Your task to perform on an android device: Find coffee shops on Maps Image 0: 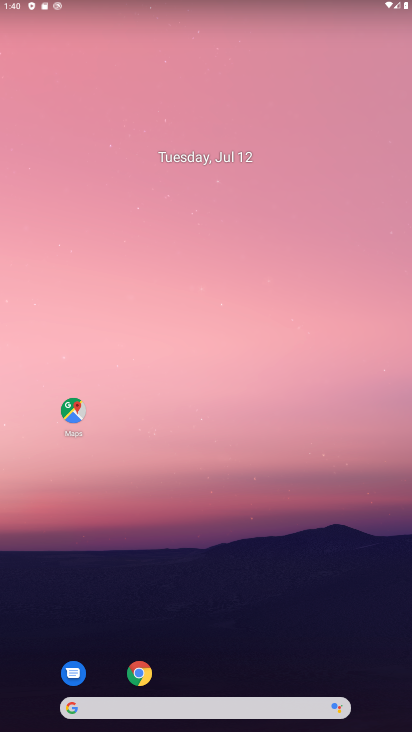
Step 0: click (69, 411)
Your task to perform on an android device: Find coffee shops on Maps Image 1: 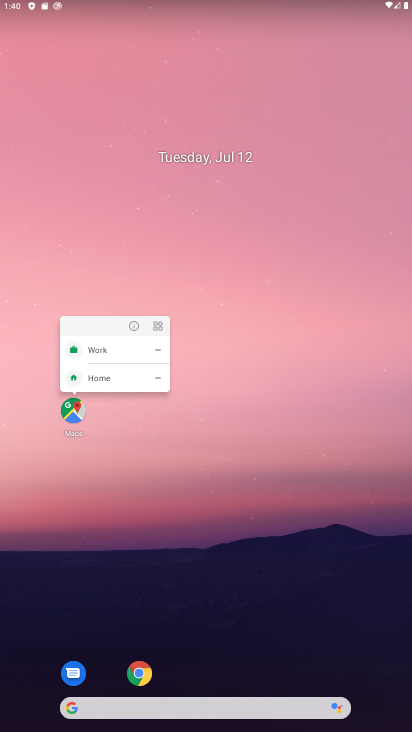
Step 1: click (71, 415)
Your task to perform on an android device: Find coffee shops on Maps Image 2: 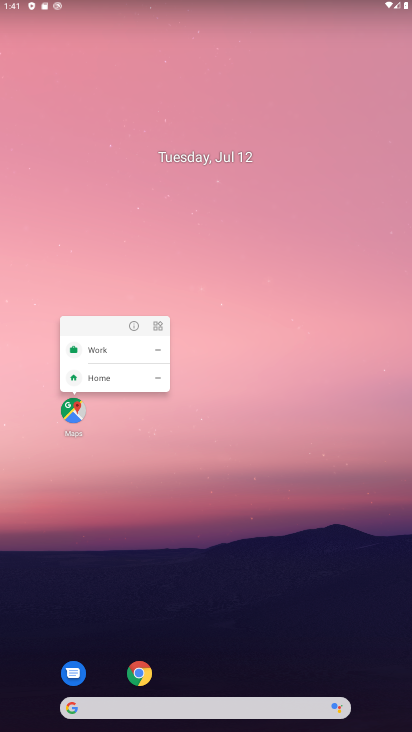
Step 2: click (71, 415)
Your task to perform on an android device: Find coffee shops on Maps Image 3: 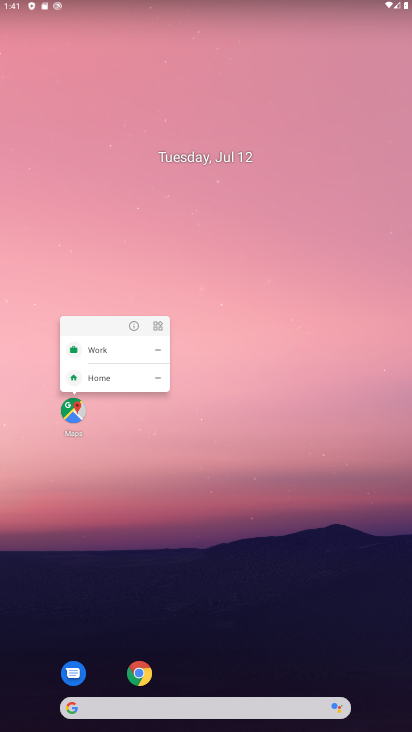
Step 3: click (76, 418)
Your task to perform on an android device: Find coffee shops on Maps Image 4: 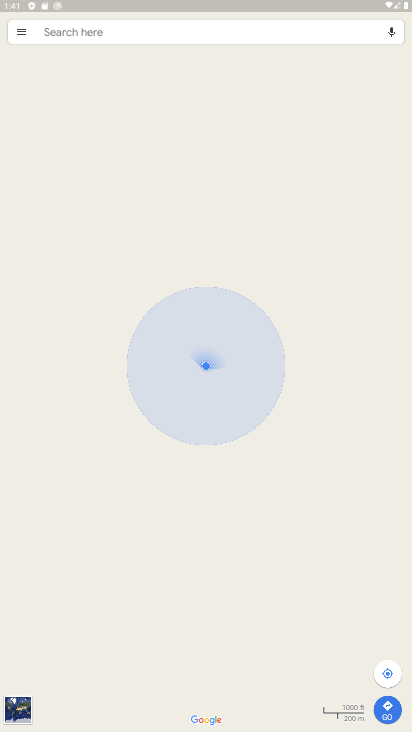
Step 4: click (80, 27)
Your task to perform on an android device: Find coffee shops on Maps Image 5: 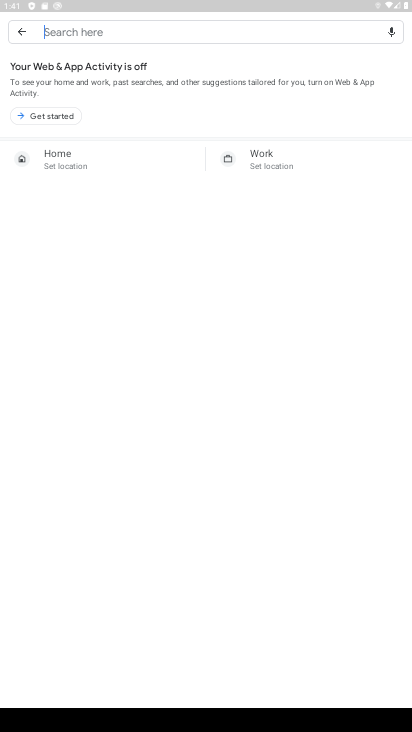
Step 5: click (79, 31)
Your task to perform on an android device: Find coffee shops on Maps Image 6: 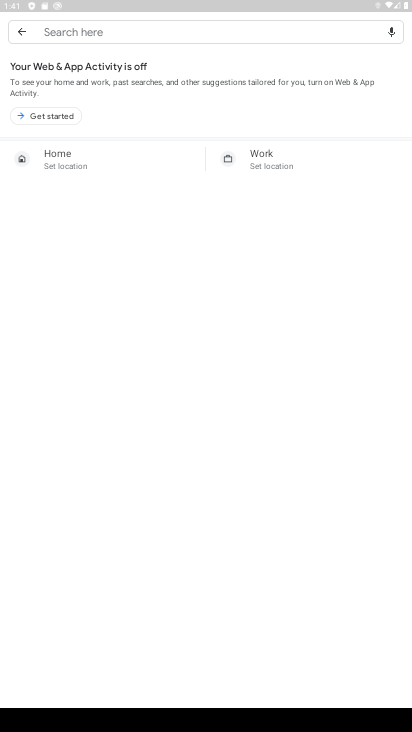
Step 6: click (79, 31)
Your task to perform on an android device: Find coffee shops on Maps Image 7: 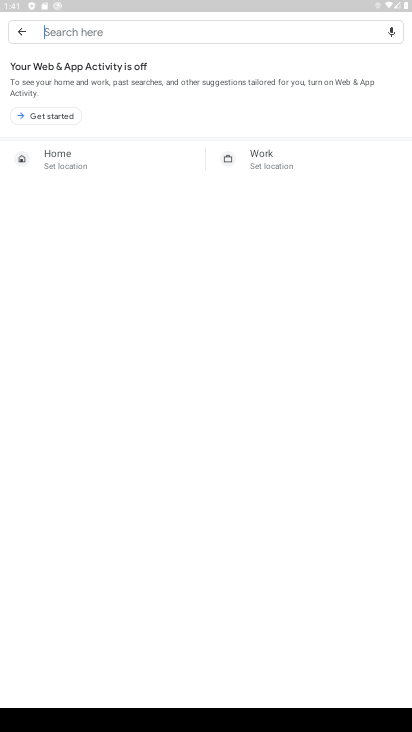
Step 7: click (81, 31)
Your task to perform on an android device: Find coffee shops on Maps Image 8: 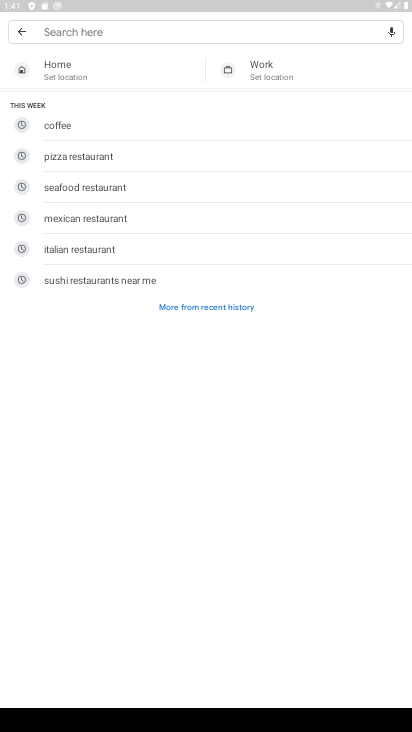
Step 8: click (67, 129)
Your task to perform on an android device: Find coffee shops on Maps Image 9: 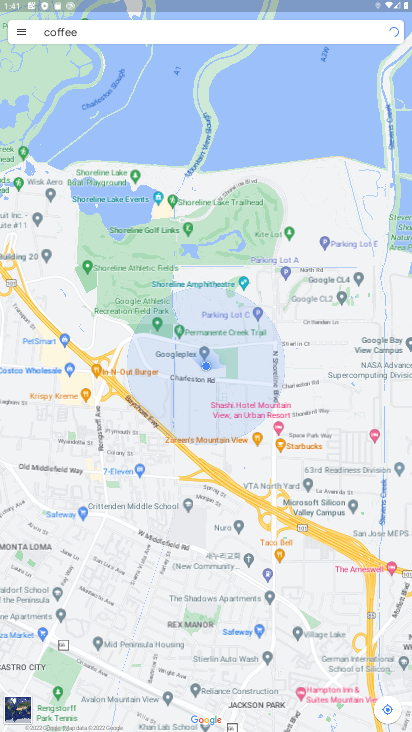
Step 9: task complete